Your task to perform on an android device: Go to display settings Image 0: 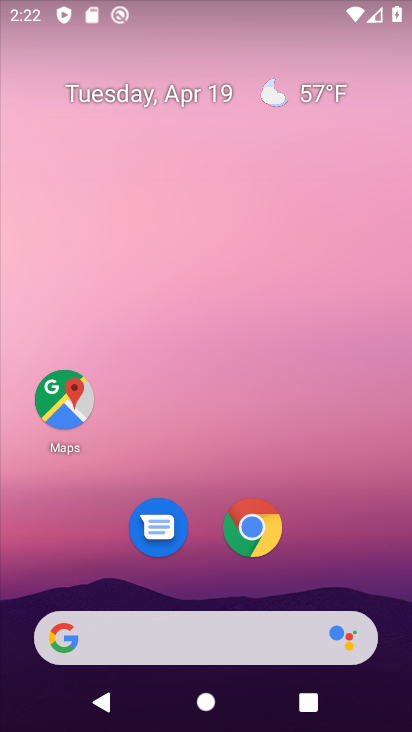
Step 0: drag from (311, 596) to (334, 47)
Your task to perform on an android device: Go to display settings Image 1: 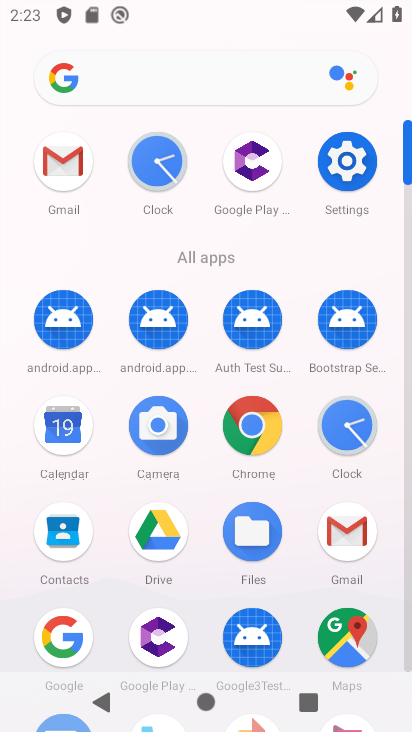
Step 1: click (348, 178)
Your task to perform on an android device: Go to display settings Image 2: 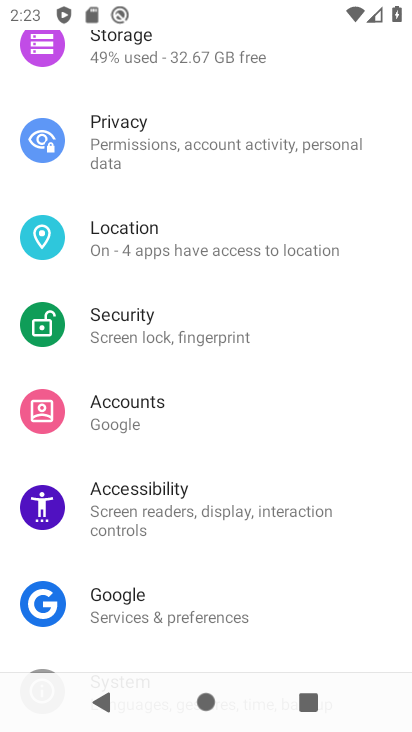
Step 2: drag from (175, 243) to (196, 373)
Your task to perform on an android device: Go to display settings Image 3: 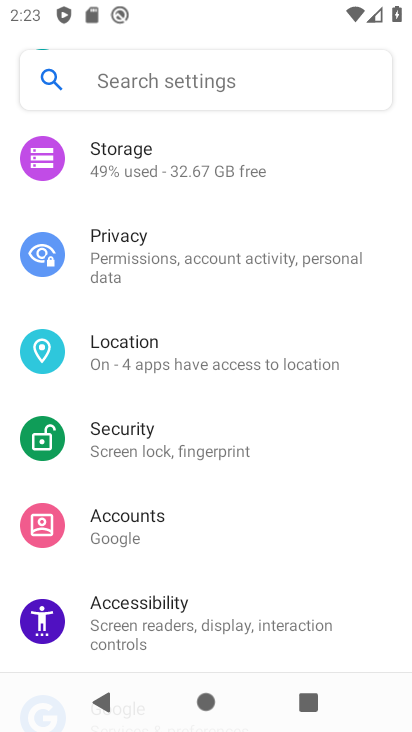
Step 3: drag from (192, 215) to (194, 365)
Your task to perform on an android device: Go to display settings Image 4: 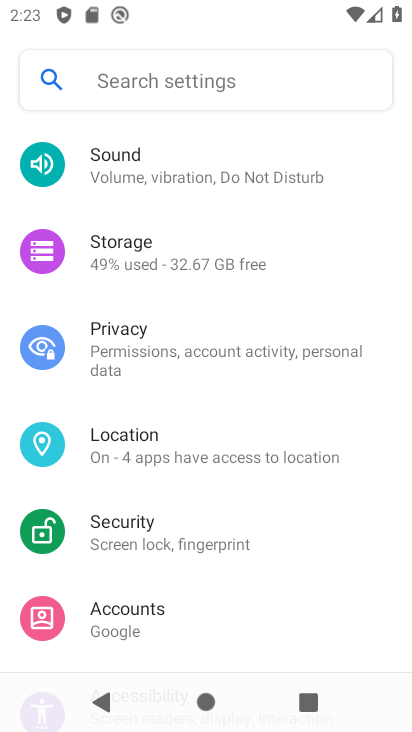
Step 4: drag from (157, 202) to (171, 342)
Your task to perform on an android device: Go to display settings Image 5: 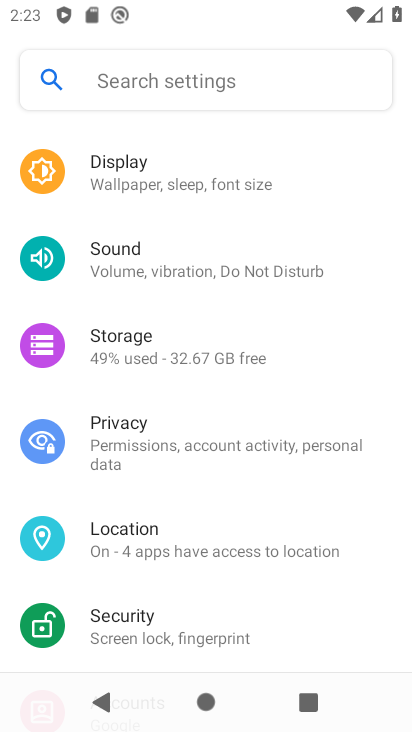
Step 5: click (155, 175)
Your task to perform on an android device: Go to display settings Image 6: 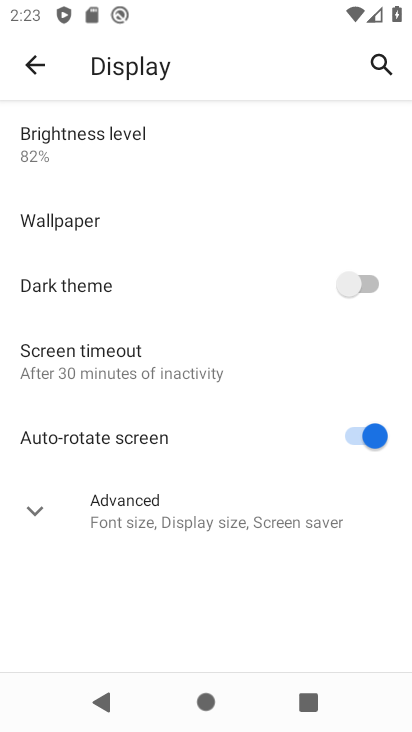
Step 6: task complete